Your task to perform on an android device: What is the recent news? Image 0: 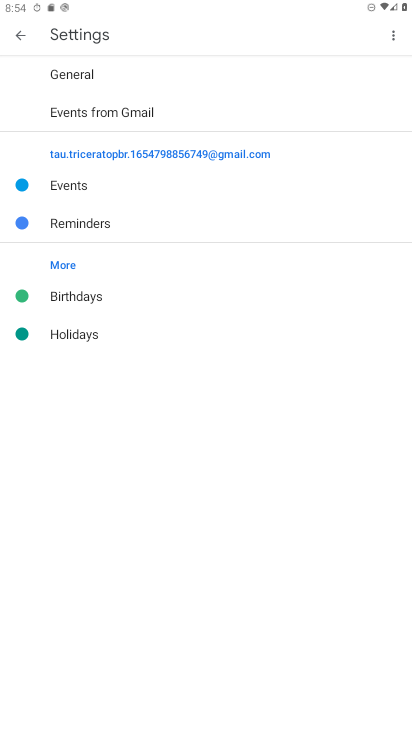
Step 0: press back button
Your task to perform on an android device: What is the recent news? Image 1: 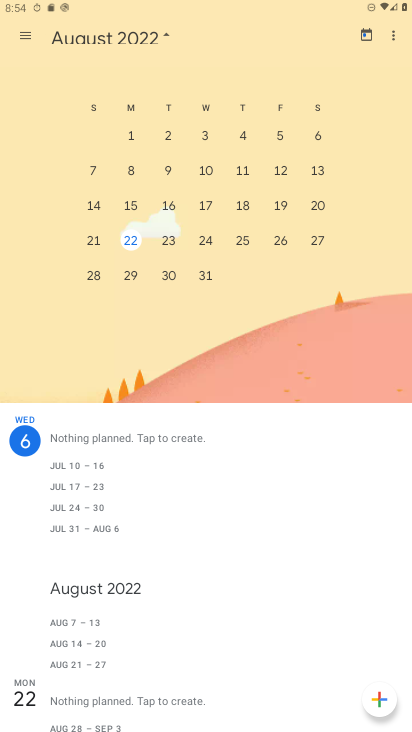
Step 1: task complete